Your task to perform on an android device: Open accessibility settings Image 0: 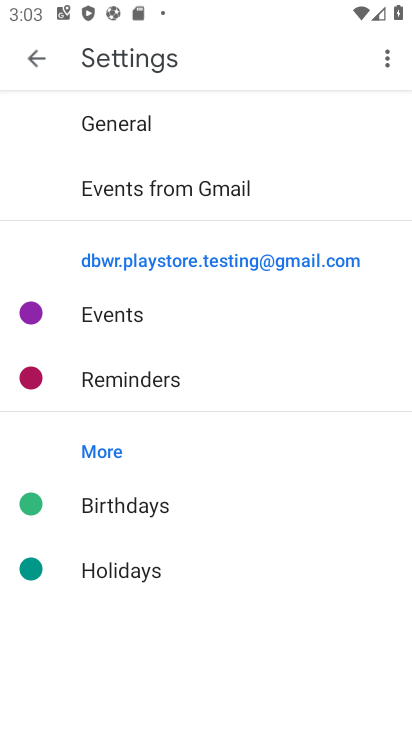
Step 0: press home button
Your task to perform on an android device: Open accessibility settings Image 1: 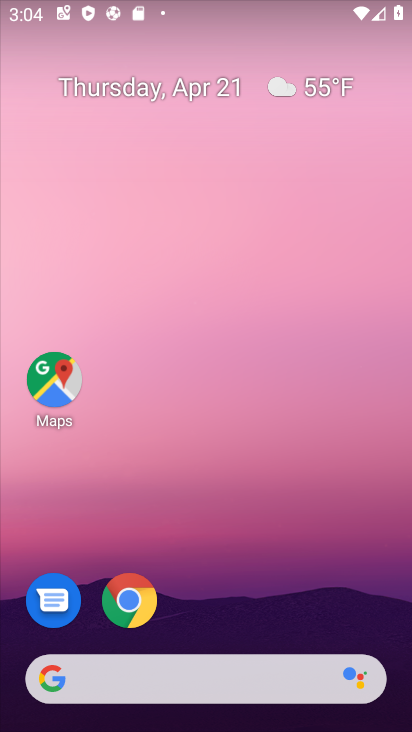
Step 1: drag from (181, 674) to (315, 73)
Your task to perform on an android device: Open accessibility settings Image 2: 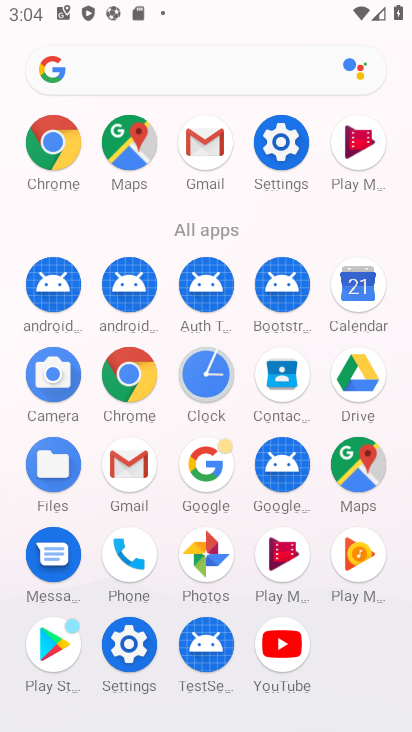
Step 2: click (294, 143)
Your task to perform on an android device: Open accessibility settings Image 3: 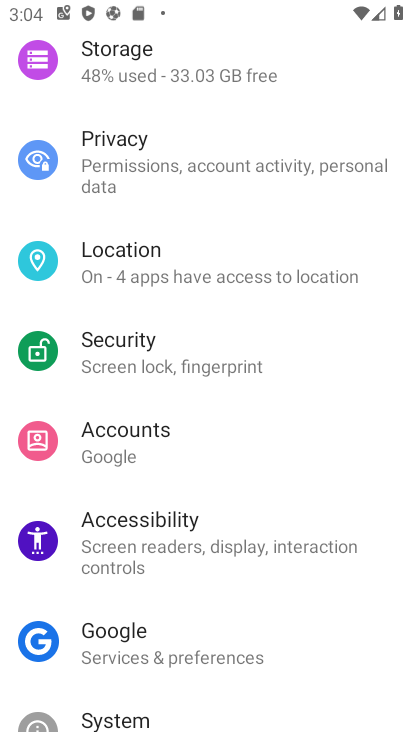
Step 3: click (154, 530)
Your task to perform on an android device: Open accessibility settings Image 4: 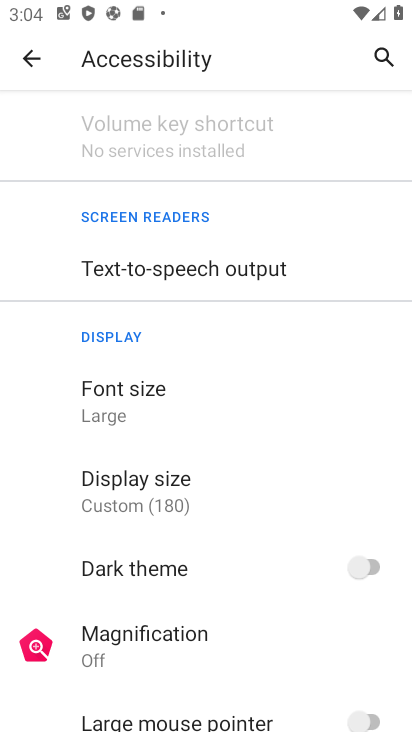
Step 4: task complete